Your task to perform on an android device: Go to Google maps Image 0: 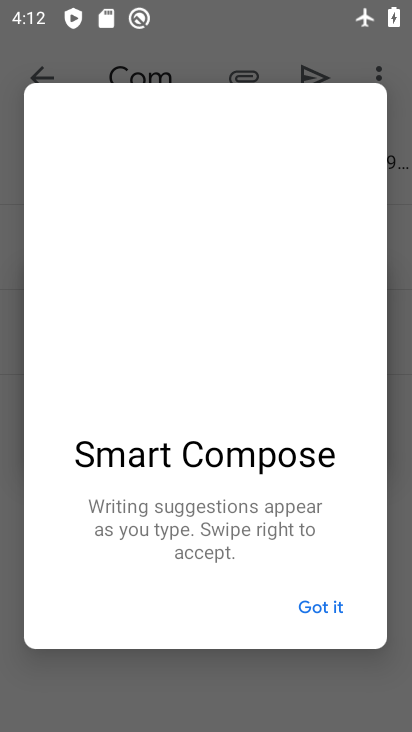
Step 0: press home button
Your task to perform on an android device: Go to Google maps Image 1: 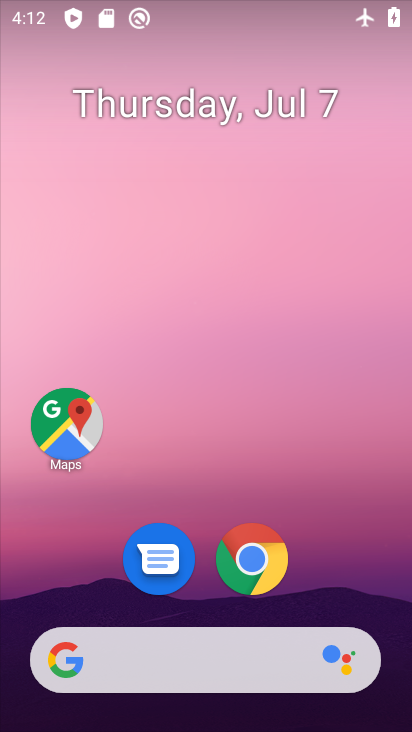
Step 1: drag from (180, 602) to (145, 7)
Your task to perform on an android device: Go to Google maps Image 2: 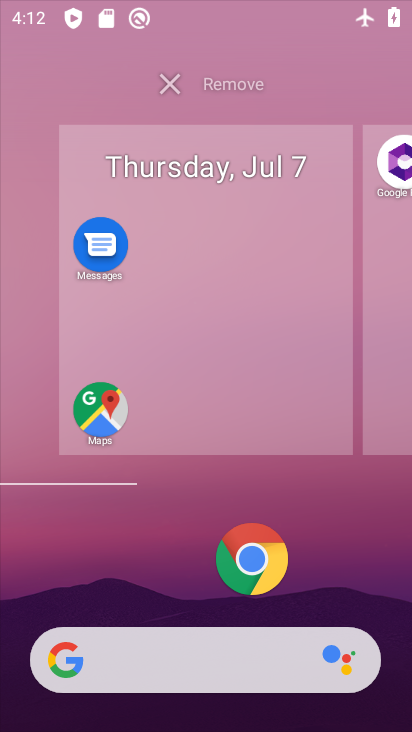
Step 2: click (179, 571)
Your task to perform on an android device: Go to Google maps Image 3: 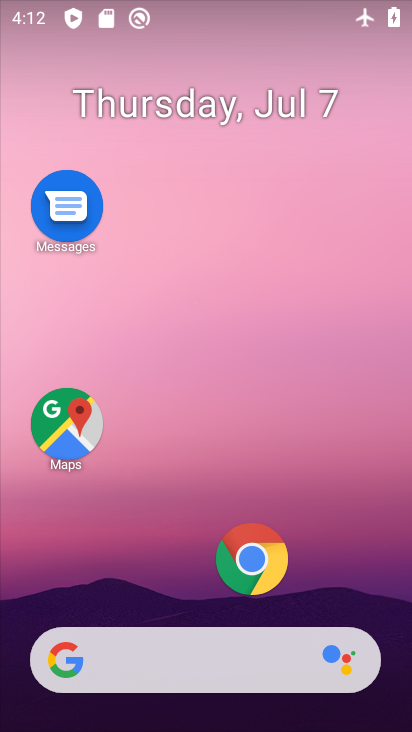
Step 3: click (78, 426)
Your task to perform on an android device: Go to Google maps Image 4: 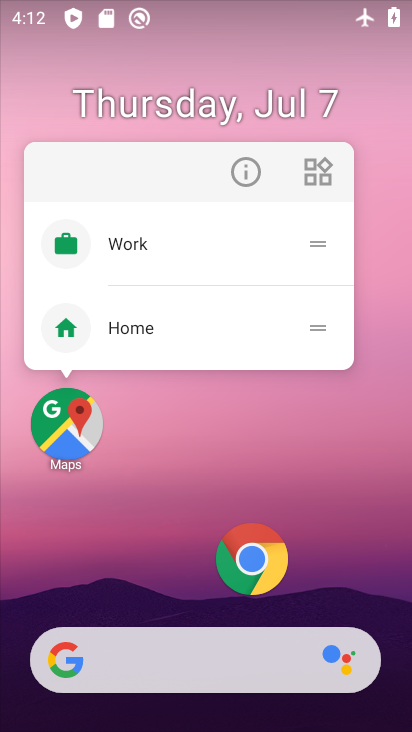
Step 4: click (68, 434)
Your task to perform on an android device: Go to Google maps Image 5: 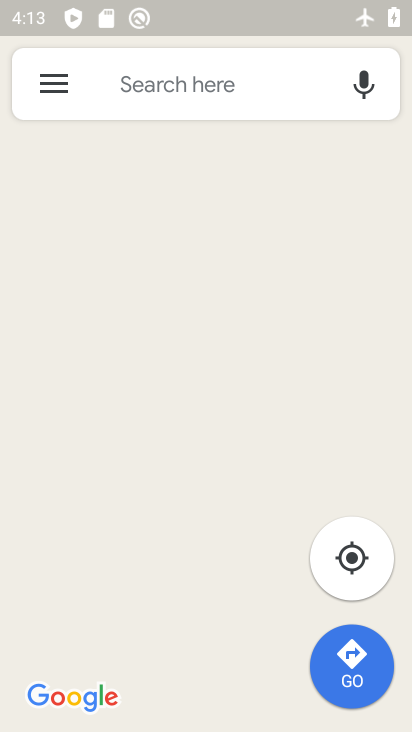
Step 5: task complete